Your task to perform on an android device: empty trash in google photos Image 0: 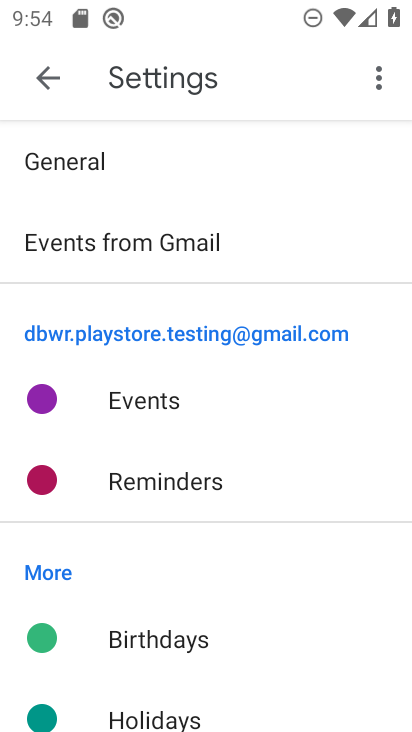
Step 0: press home button
Your task to perform on an android device: empty trash in google photos Image 1: 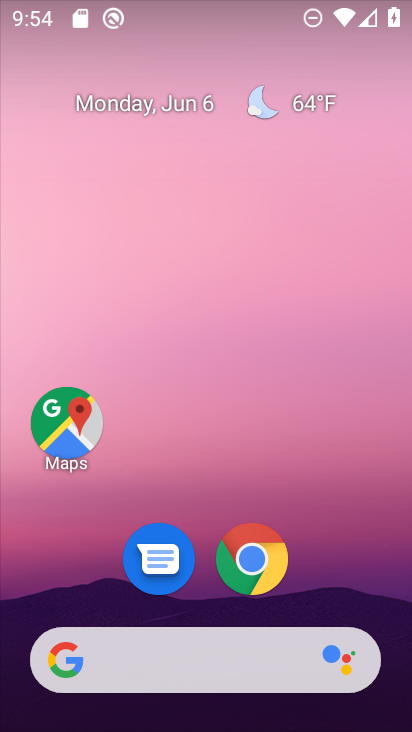
Step 1: drag from (220, 726) to (192, 34)
Your task to perform on an android device: empty trash in google photos Image 2: 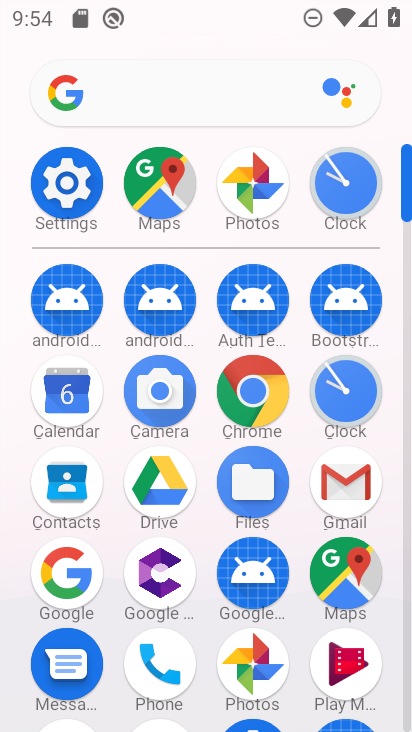
Step 2: click (257, 661)
Your task to perform on an android device: empty trash in google photos Image 3: 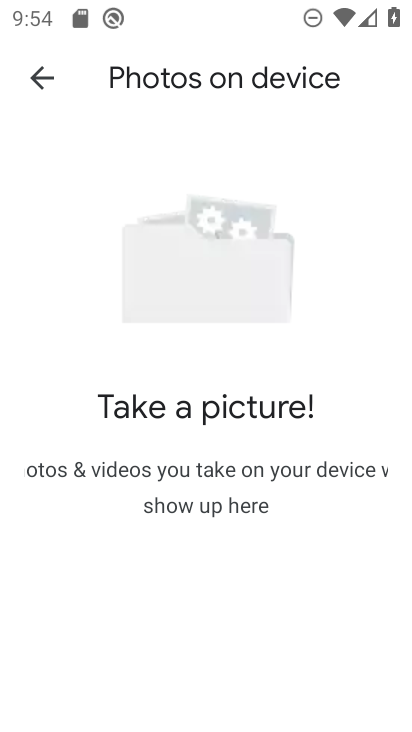
Step 3: click (42, 73)
Your task to perform on an android device: empty trash in google photos Image 4: 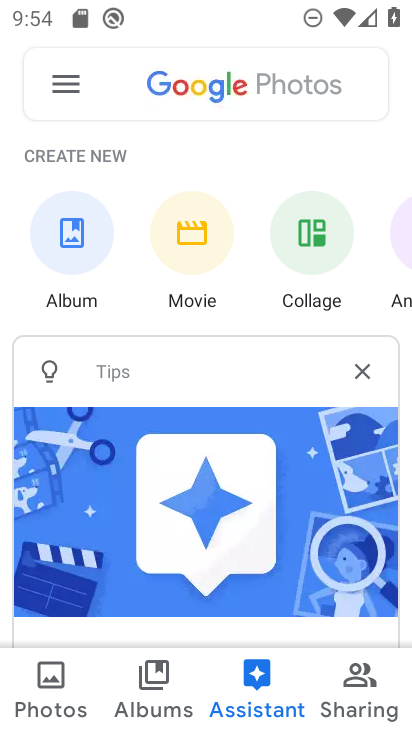
Step 4: click (55, 82)
Your task to perform on an android device: empty trash in google photos Image 5: 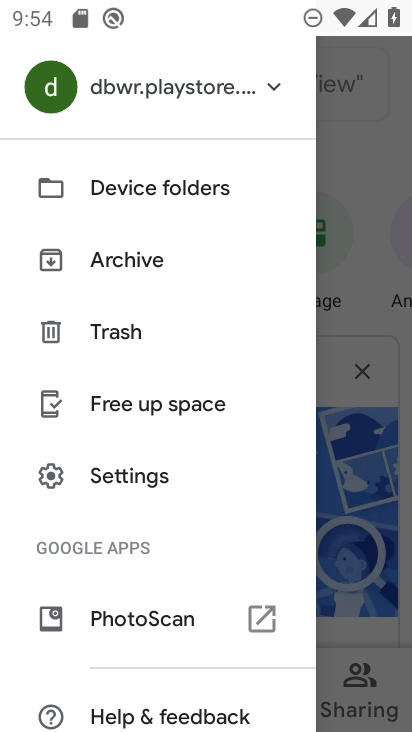
Step 5: click (119, 329)
Your task to perform on an android device: empty trash in google photos Image 6: 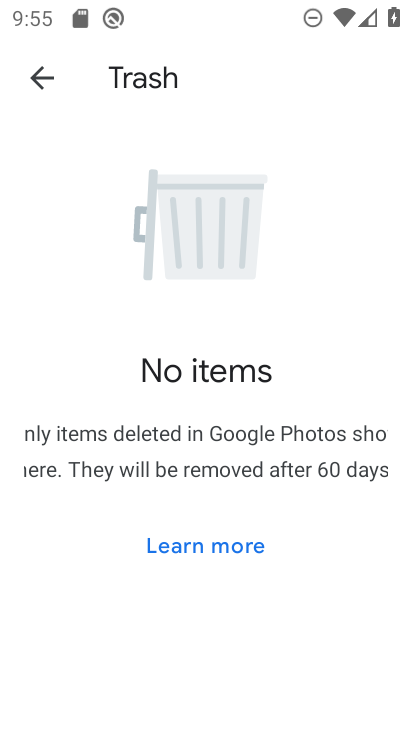
Step 6: task complete